Your task to perform on an android device: turn on bluetooth scan Image 0: 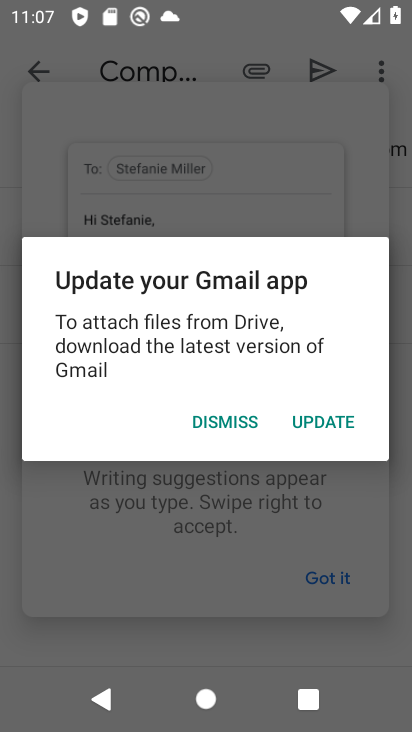
Step 0: press home button
Your task to perform on an android device: turn on bluetooth scan Image 1: 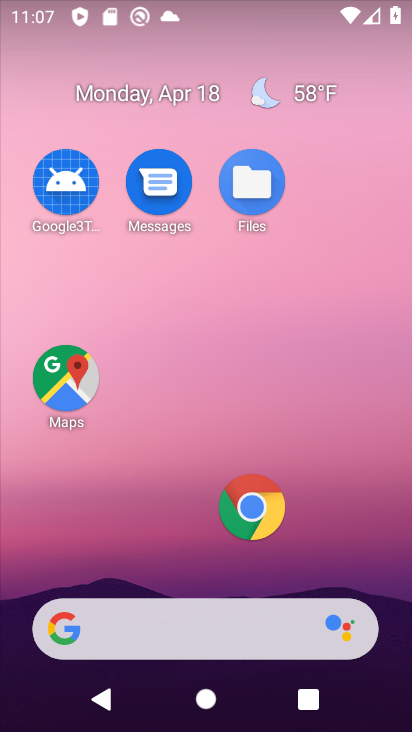
Step 1: drag from (180, 566) to (344, 5)
Your task to perform on an android device: turn on bluetooth scan Image 2: 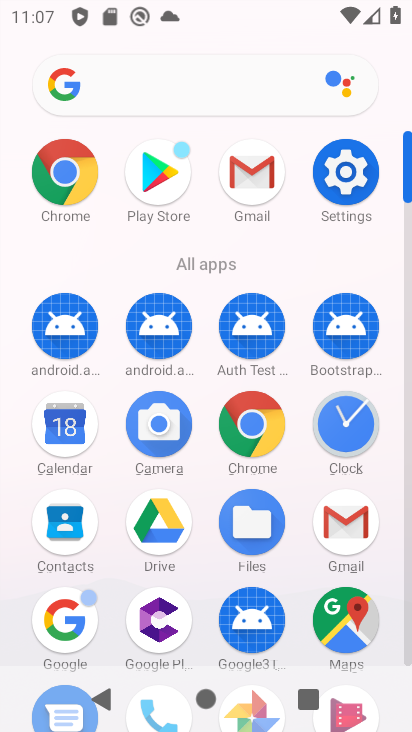
Step 2: click (335, 182)
Your task to perform on an android device: turn on bluetooth scan Image 3: 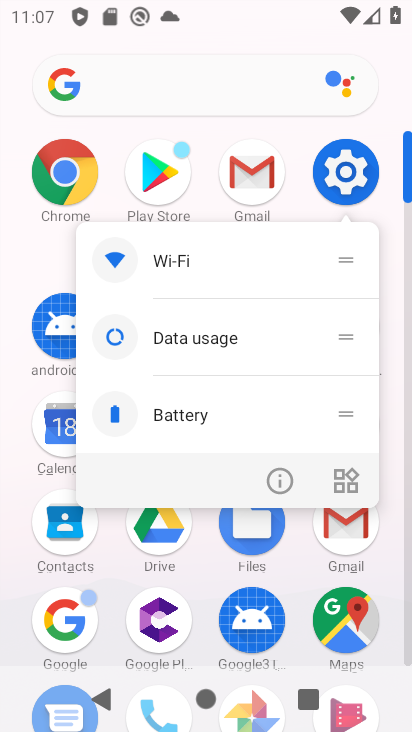
Step 3: click (351, 165)
Your task to perform on an android device: turn on bluetooth scan Image 4: 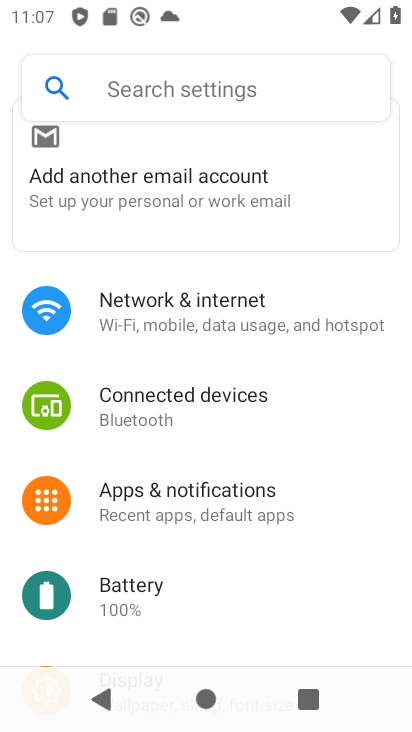
Step 4: drag from (217, 578) to (219, 18)
Your task to perform on an android device: turn on bluetooth scan Image 5: 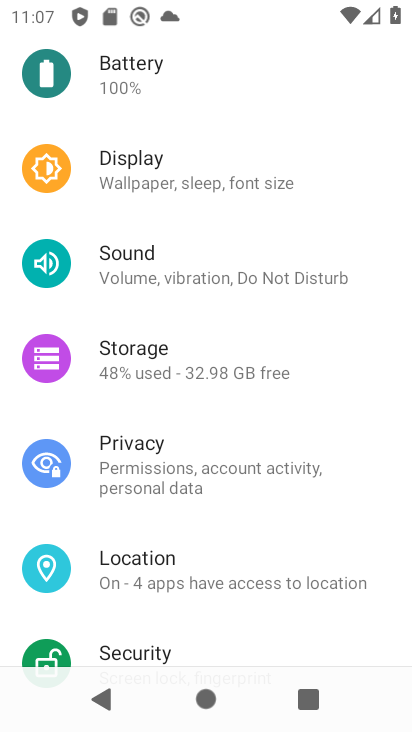
Step 5: drag from (167, 532) to (140, 106)
Your task to perform on an android device: turn on bluetooth scan Image 6: 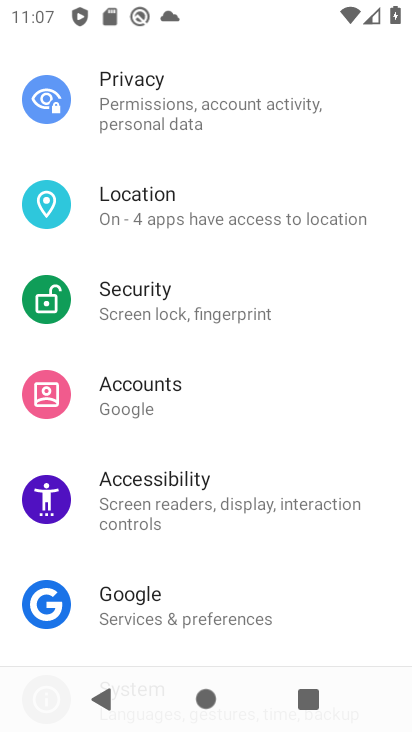
Step 6: click (144, 185)
Your task to perform on an android device: turn on bluetooth scan Image 7: 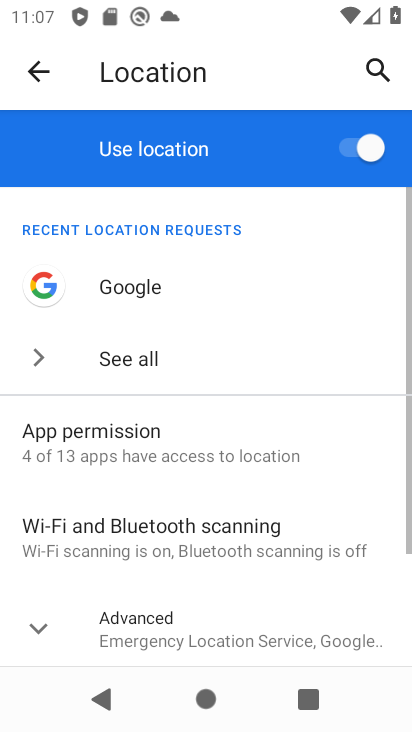
Step 7: click (186, 552)
Your task to perform on an android device: turn on bluetooth scan Image 8: 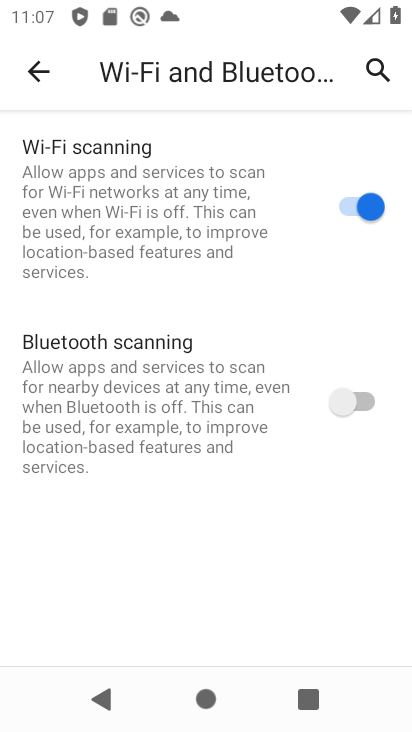
Step 8: click (334, 394)
Your task to perform on an android device: turn on bluetooth scan Image 9: 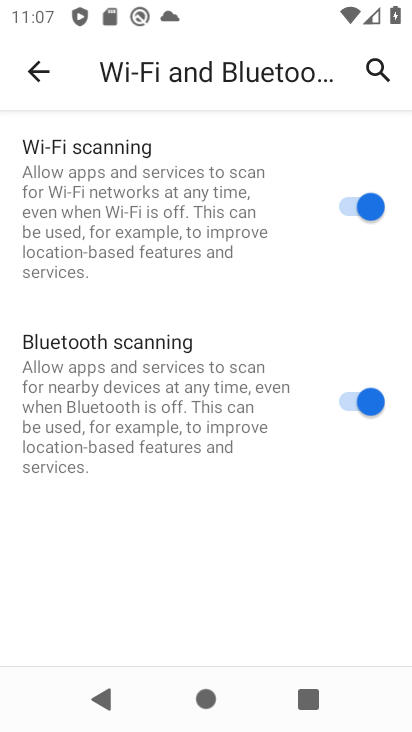
Step 9: task complete